Your task to perform on an android device: Show me recent news Image 0: 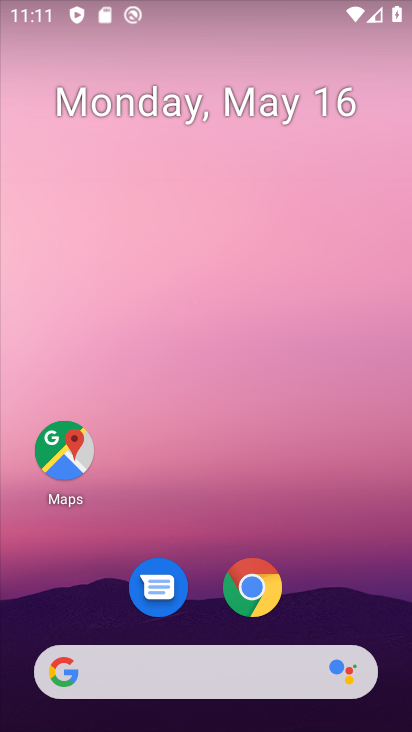
Step 0: drag from (311, 615) to (322, 252)
Your task to perform on an android device: Show me recent news Image 1: 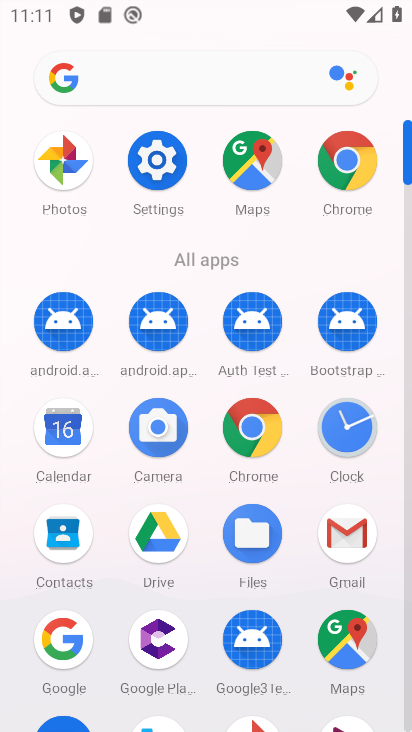
Step 1: click (347, 152)
Your task to perform on an android device: Show me recent news Image 2: 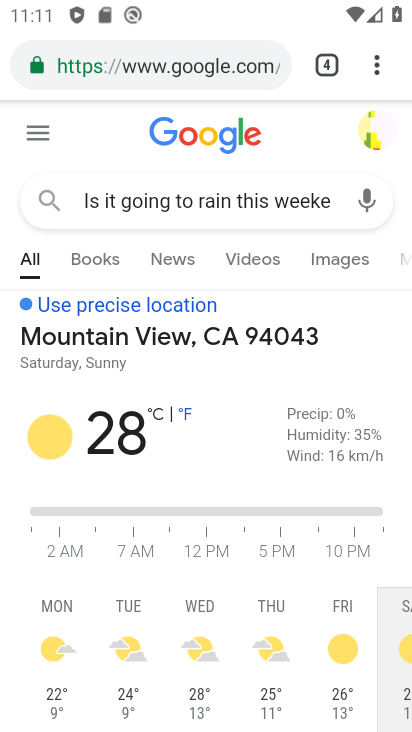
Step 2: click (369, 59)
Your task to perform on an android device: Show me recent news Image 3: 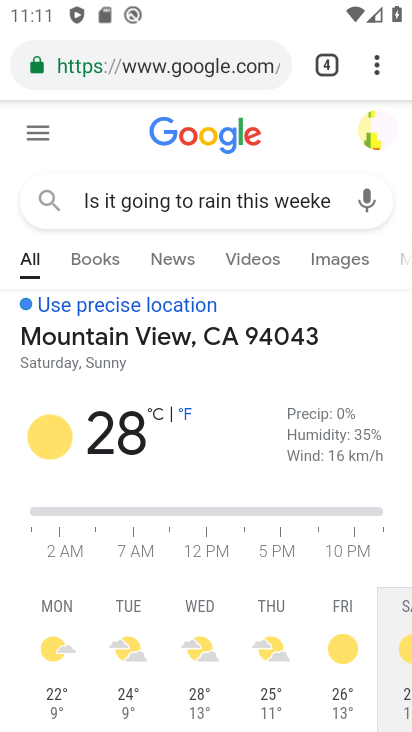
Step 3: click (355, 59)
Your task to perform on an android device: Show me recent news Image 4: 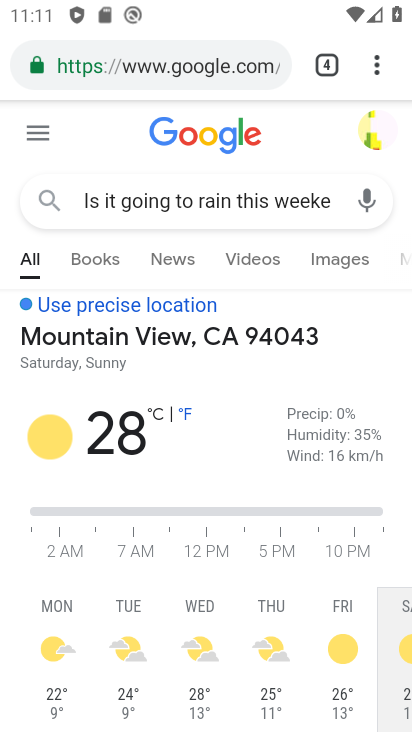
Step 4: click (367, 52)
Your task to perform on an android device: Show me recent news Image 5: 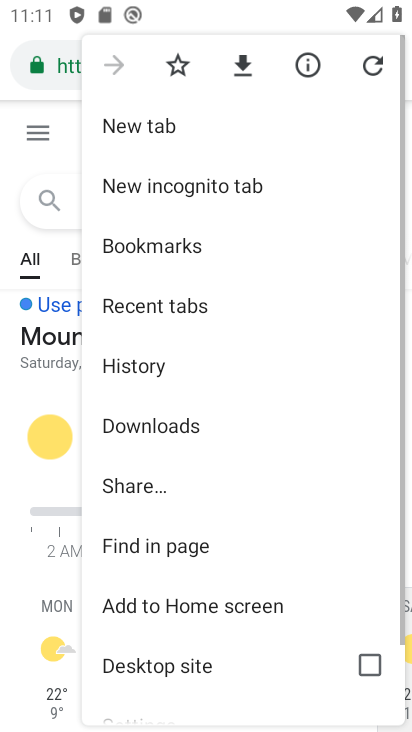
Step 5: click (177, 121)
Your task to perform on an android device: Show me recent news Image 6: 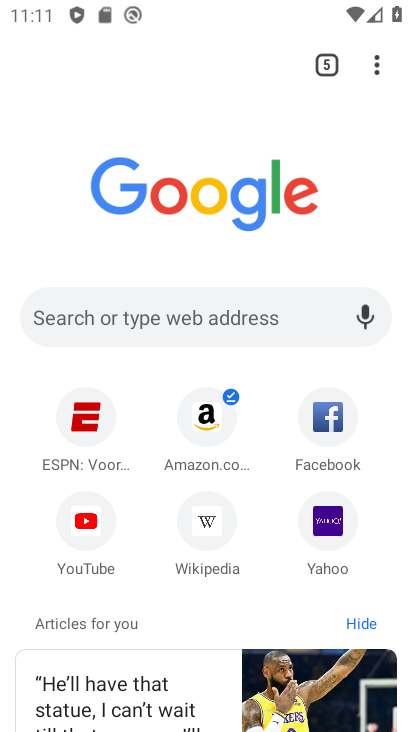
Step 6: click (196, 308)
Your task to perform on an android device: Show me recent news Image 7: 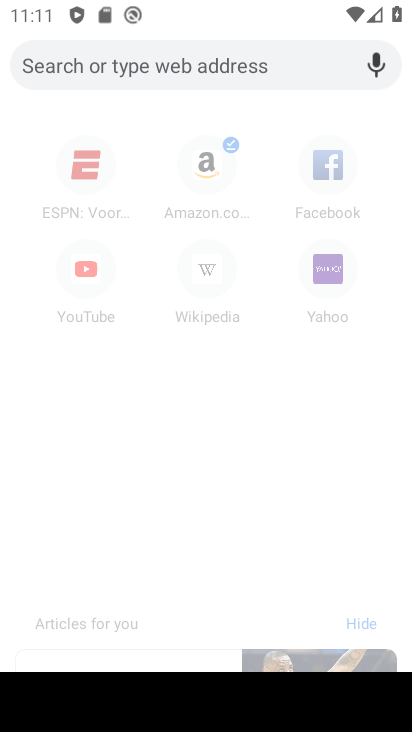
Step 7: type "Show me recent news"
Your task to perform on an android device: Show me recent news Image 8: 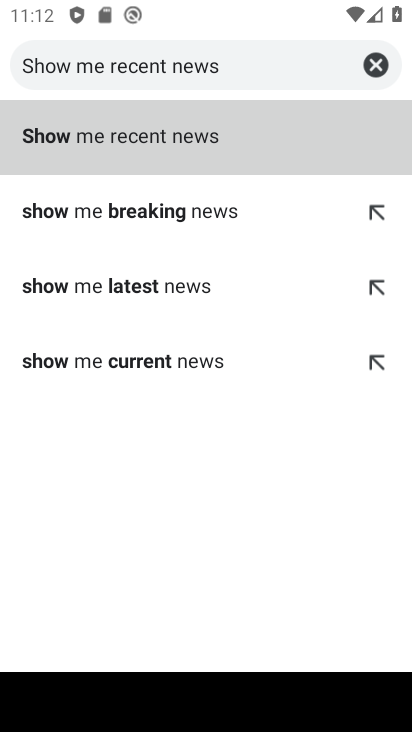
Step 8: click (165, 200)
Your task to perform on an android device: Show me recent news Image 9: 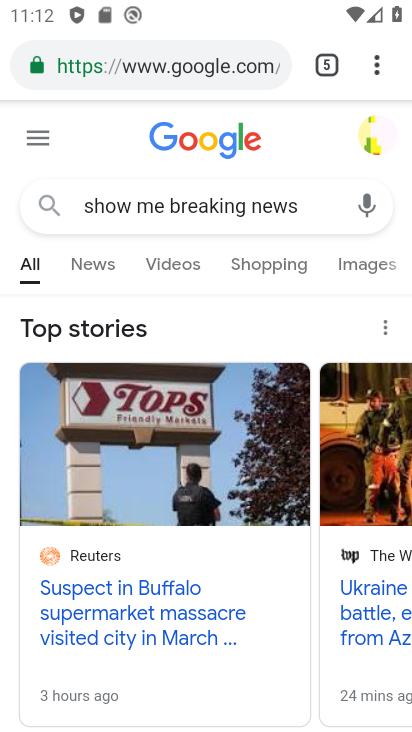
Step 9: click (296, 205)
Your task to perform on an android device: Show me recent news Image 10: 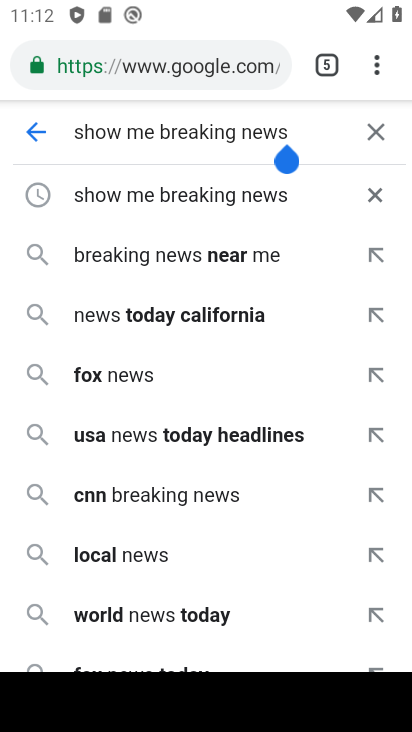
Step 10: click (371, 135)
Your task to perform on an android device: Show me recent news Image 11: 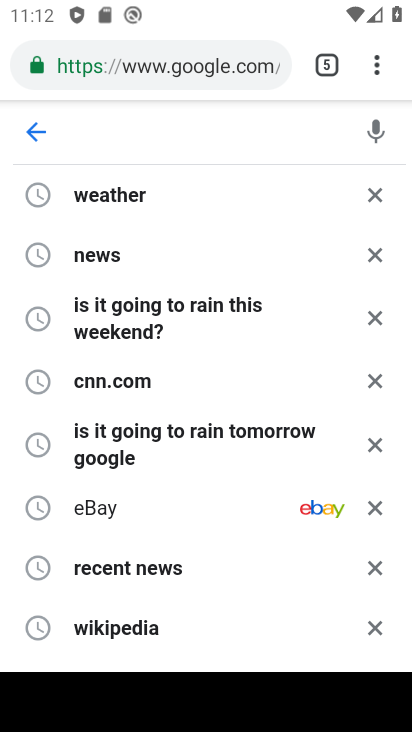
Step 11: click (163, 130)
Your task to perform on an android device: Show me recent news Image 12: 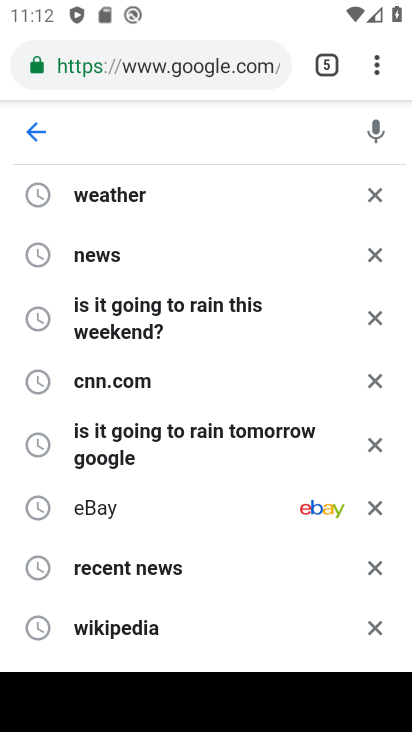
Step 12: click (161, 565)
Your task to perform on an android device: Show me recent news Image 13: 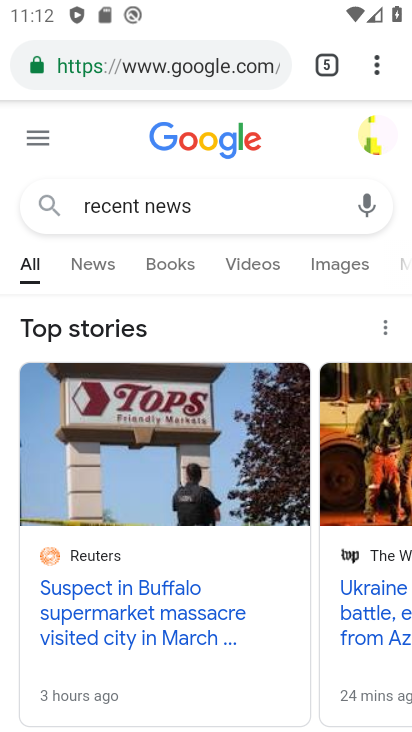
Step 13: task complete